Your task to perform on an android device: turn off notifications settings in the gmail app Image 0: 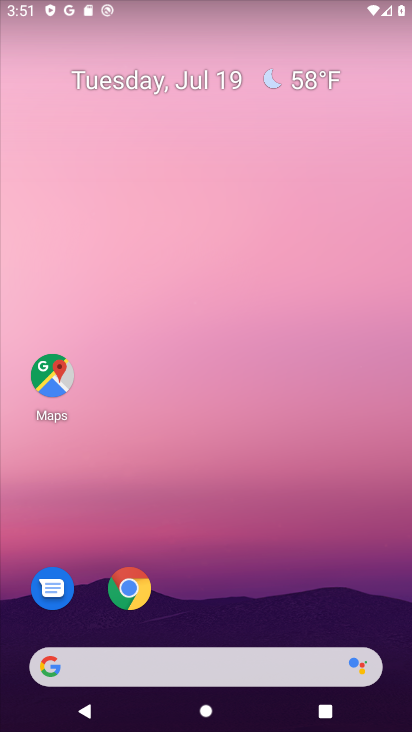
Step 0: drag from (222, 617) to (255, 178)
Your task to perform on an android device: turn off notifications settings in the gmail app Image 1: 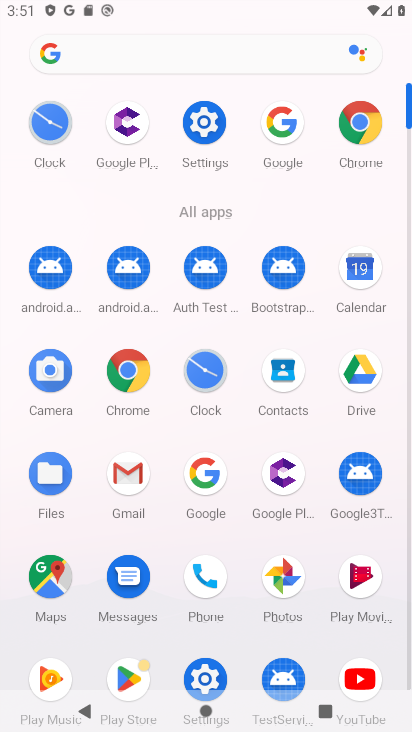
Step 1: click (125, 471)
Your task to perform on an android device: turn off notifications settings in the gmail app Image 2: 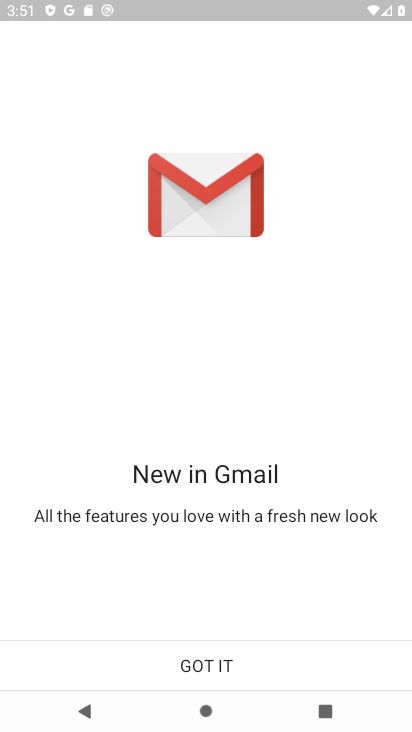
Step 2: click (222, 650)
Your task to perform on an android device: turn off notifications settings in the gmail app Image 3: 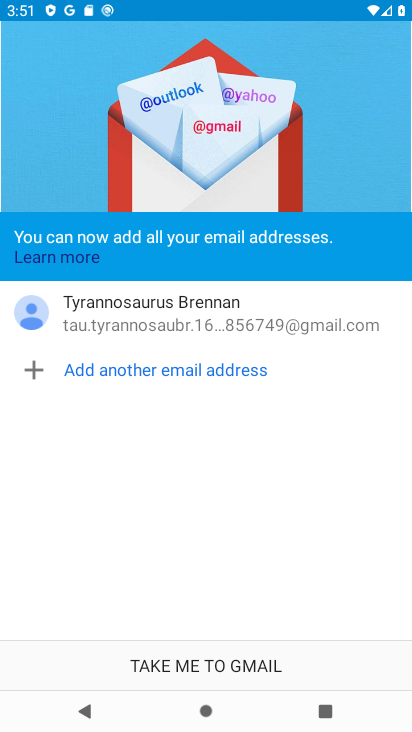
Step 3: click (224, 652)
Your task to perform on an android device: turn off notifications settings in the gmail app Image 4: 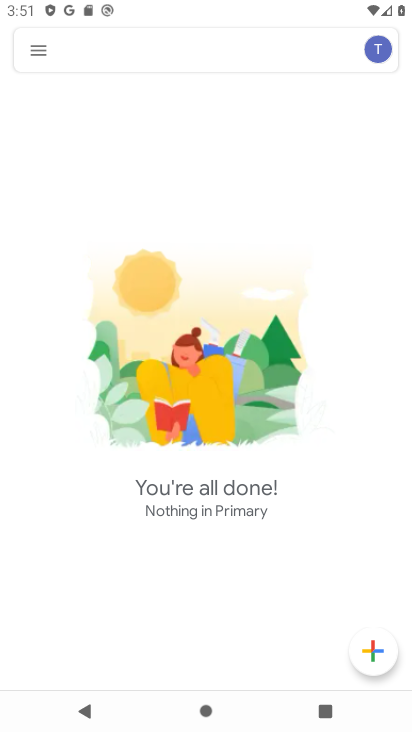
Step 4: click (54, 60)
Your task to perform on an android device: turn off notifications settings in the gmail app Image 5: 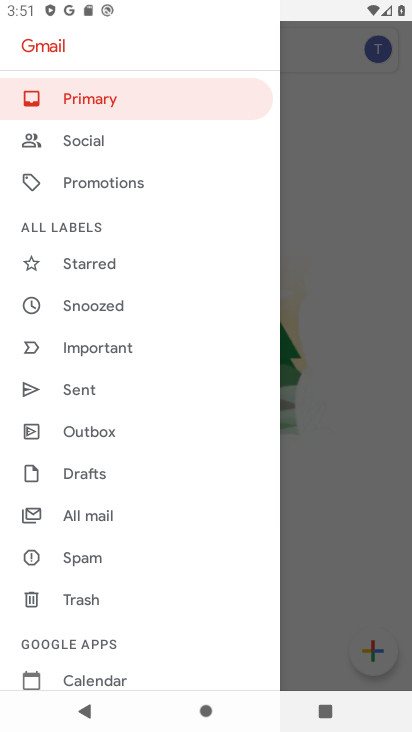
Step 5: drag from (101, 614) to (166, 335)
Your task to perform on an android device: turn off notifications settings in the gmail app Image 6: 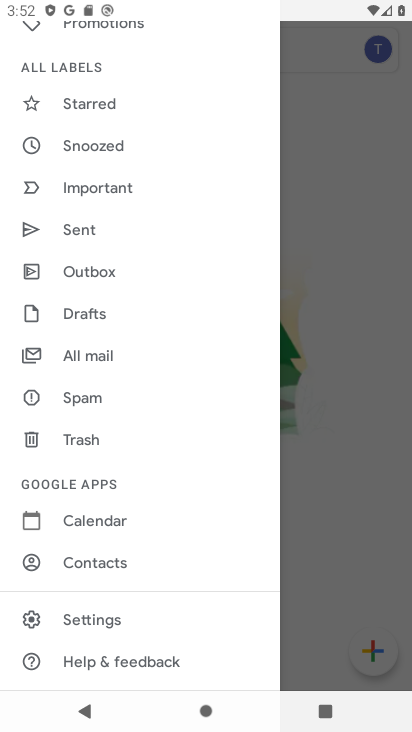
Step 6: click (171, 626)
Your task to perform on an android device: turn off notifications settings in the gmail app Image 7: 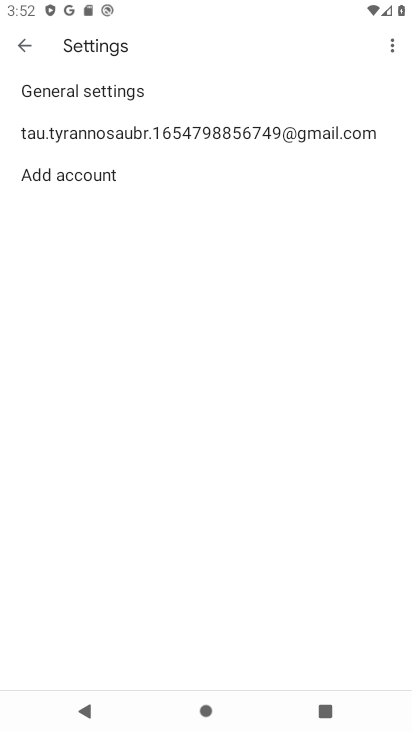
Step 7: click (239, 147)
Your task to perform on an android device: turn off notifications settings in the gmail app Image 8: 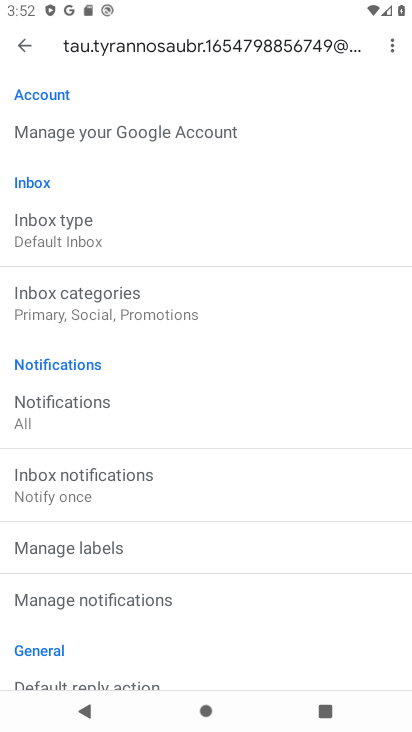
Step 8: click (192, 594)
Your task to perform on an android device: turn off notifications settings in the gmail app Image 9: 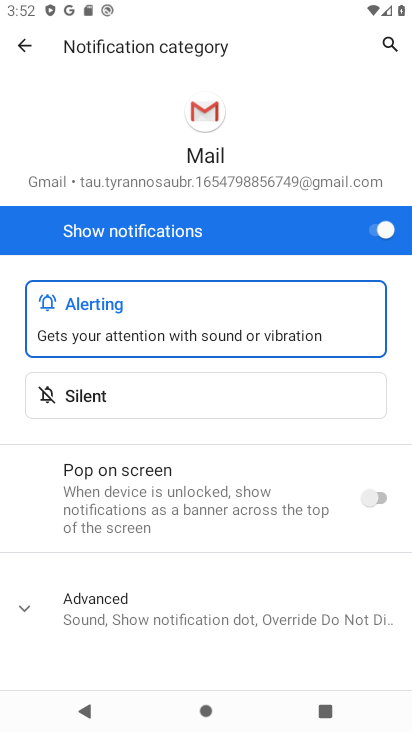
Step 9: click (370, 227)
Your task to perform on an android device: turn off notifications settings in the gmail app Image 10: 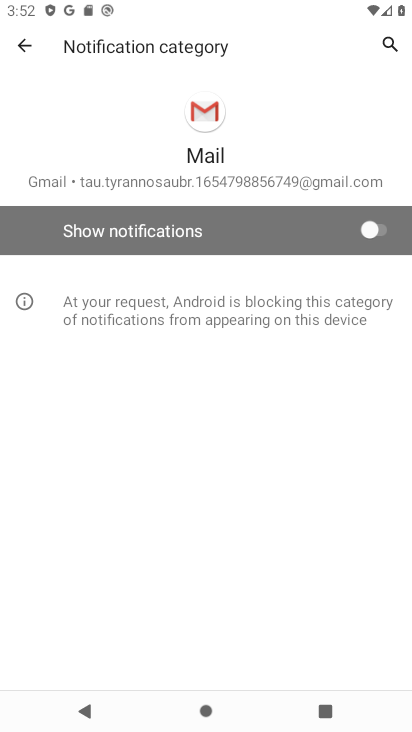
Step 10: task complete